Your task to perform on an android device: toggle airplane mode Image 0: 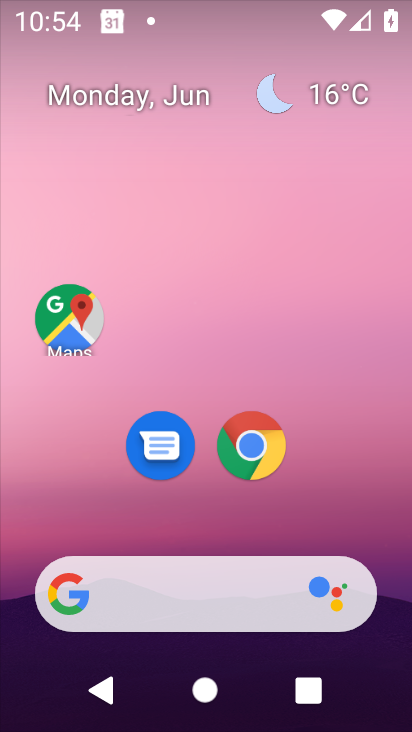
Step 0: press home button
Your task to perform on an android device: toggle airplane mode Image 1: 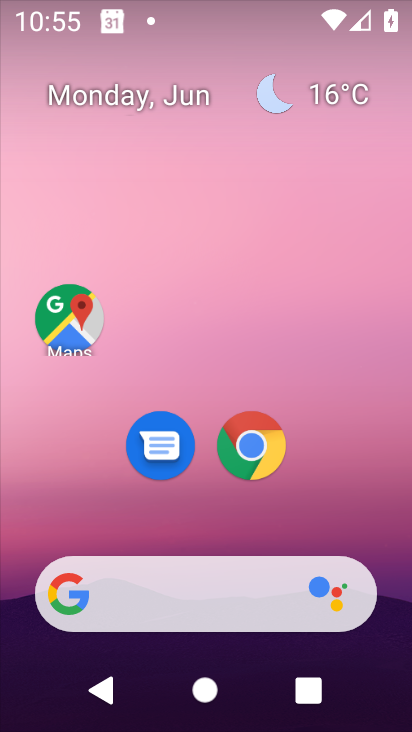
Step 1: drag from (256, 13) to (352, 559)
Your task to perform on an android device: toggle airplane mode Image 2: 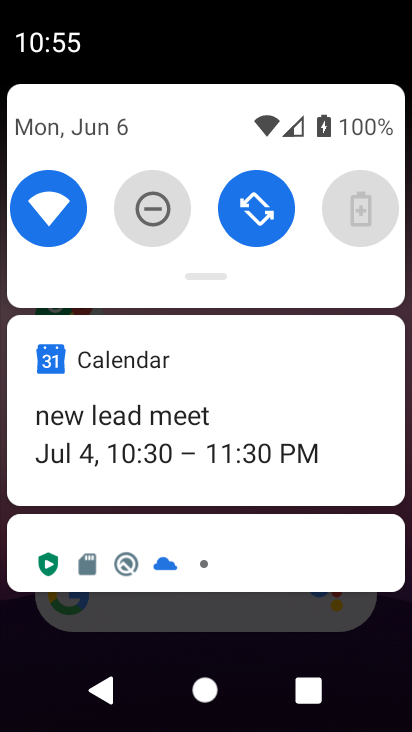
Step 2: drag from (210, 279) to (222, 718)
Your task to perform on an android device: toggle airplane mode Image 3: 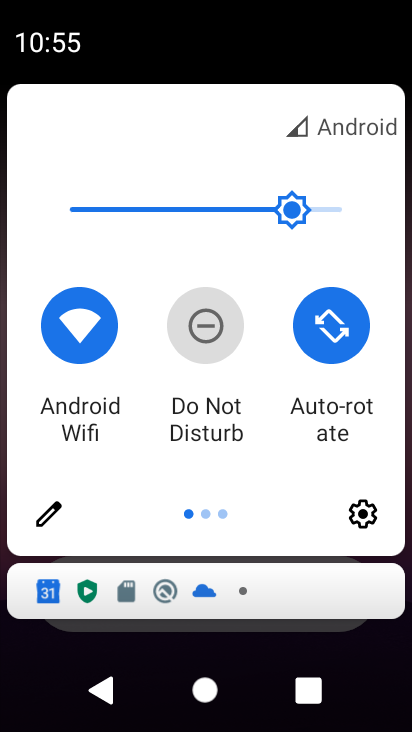
Step 3: drag from (303, 484) to (37, 523)
Your task to perform on an android device: toggle airplane mode Image 4: 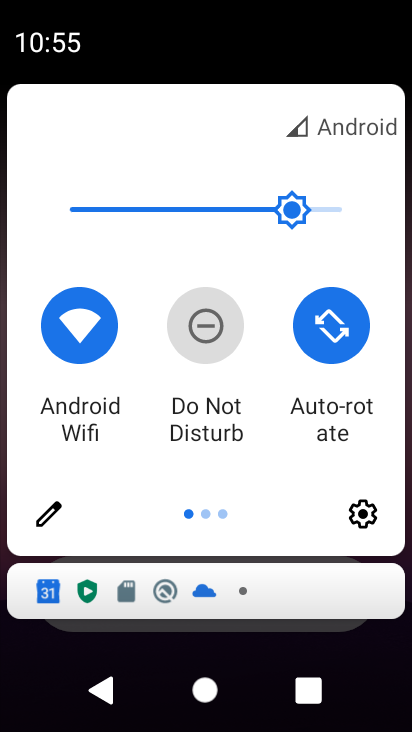
Step 4: drag from (310, 461) to (6, 458)
Your task to perform on an android device: toggle airplane mode Image 5: 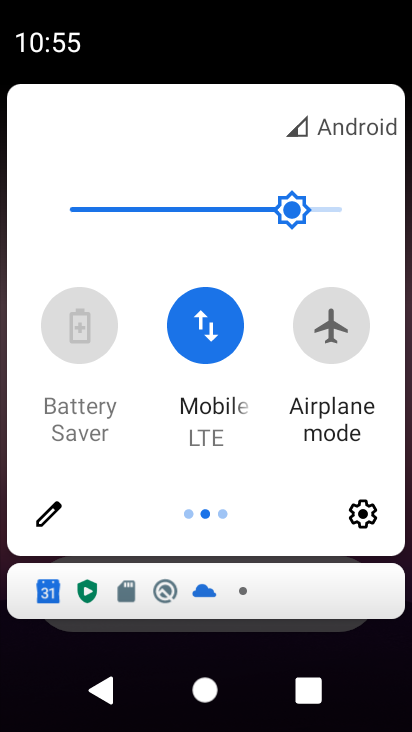
Step 5: click (309, 344)
Your task to perform on an android device: toggle airplane mode Image 6: 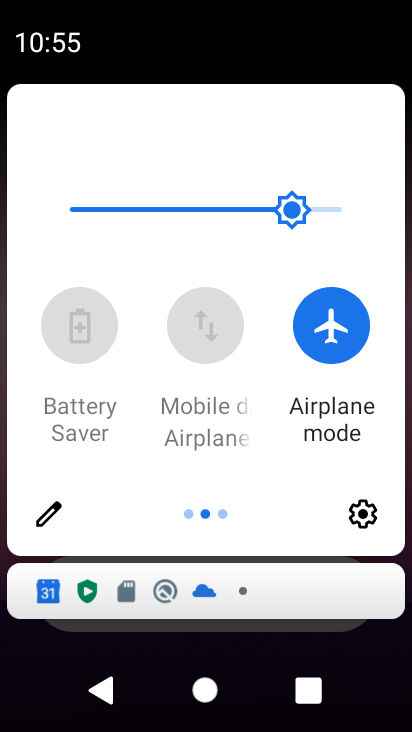
Step 6: task complete